Your task to perform on an android device: When is my next meeting? Image 0: 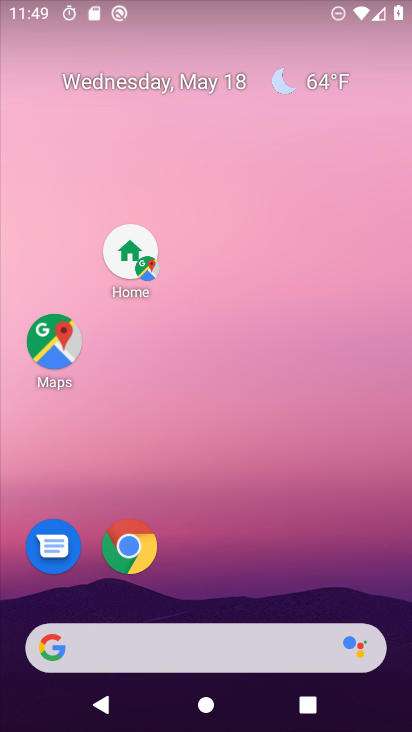
Step 0: click (181, 74)
Your task to perform on an android device: When is my next meeting? Image 1: 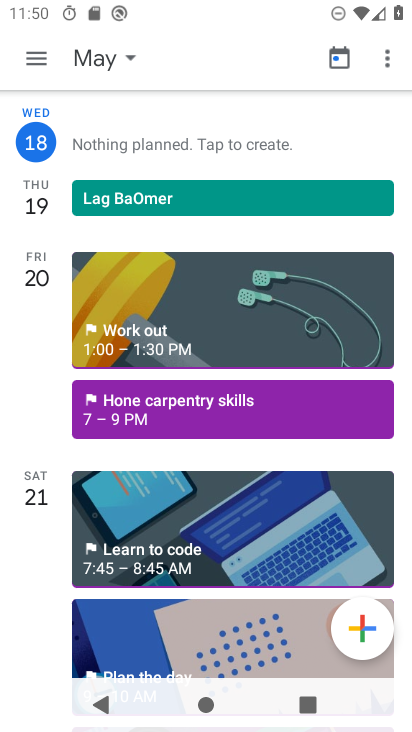
Step 1: task complete